Your task to perform on an android device: toggle improve location accuracy Image 0: 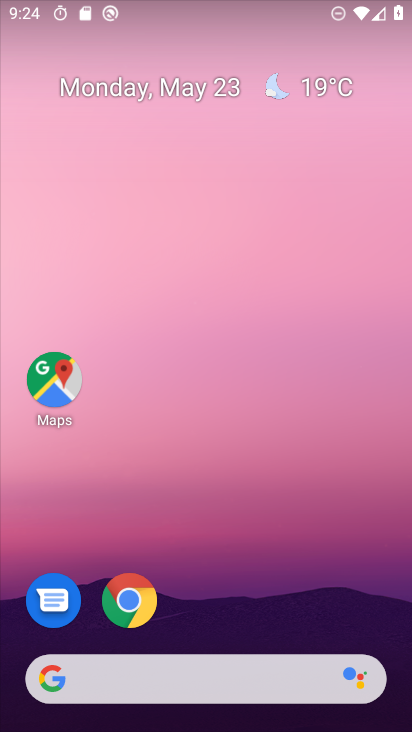
Step 0: press home button
Your task to perform on an android device: toggle improve location accuracy Image 1: 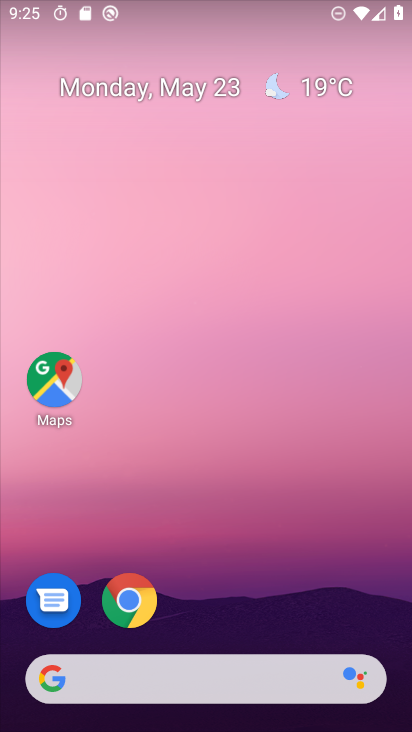
Step 1: click (127, 608)
Your task to perform on an android device: toggle improve location accuracy Image 2: 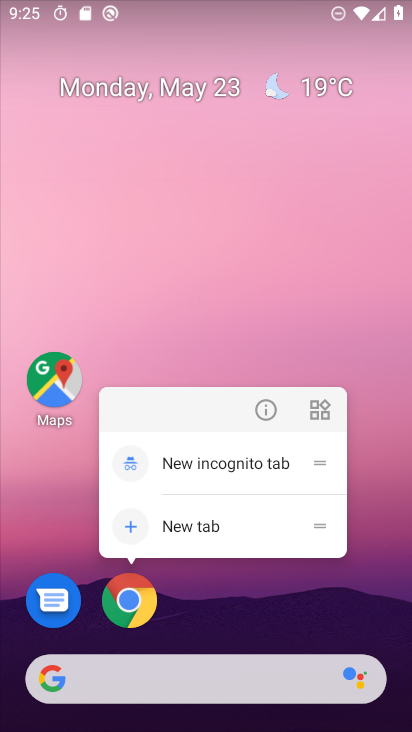
Step 2: press home button
Your task to perform on an android device: toggle improve location accuracy Image 3: 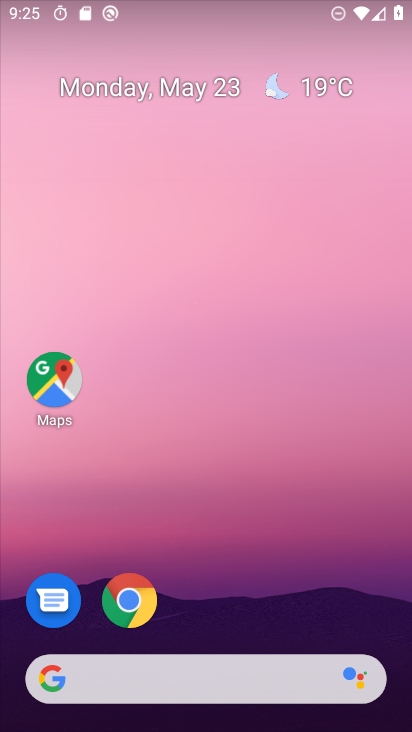
Step 3: drag from (17, 669) to (407, 90)
Your task to perform on an android device: toggle improve location accuracy Image 4: 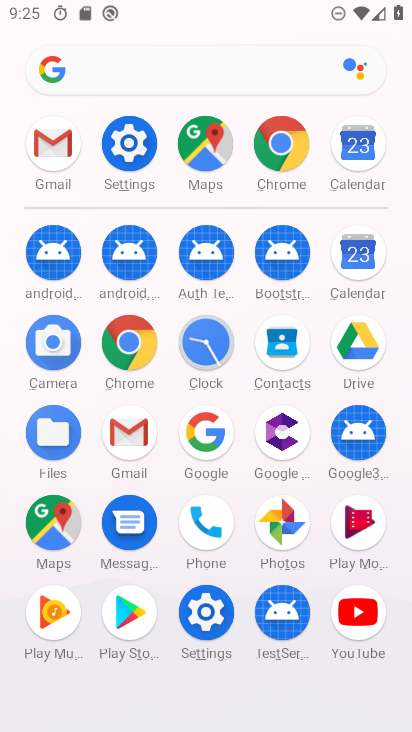
Step 4: click (131, 145)
Your task to perform on an android device: toggle improve location accuracy Image 5: 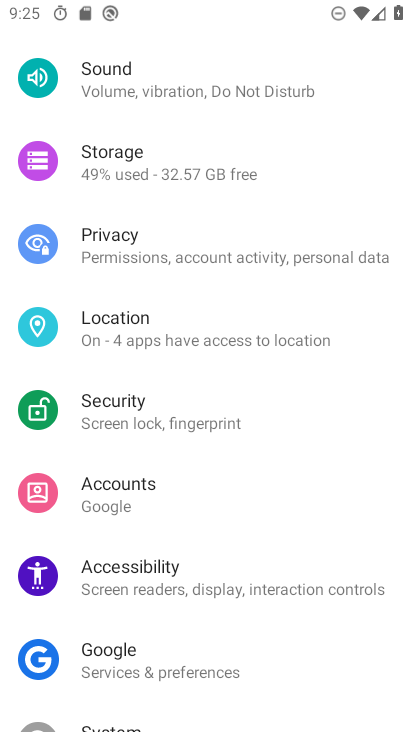
Step 5: click (105, 325)
Your task to perform on an android device: toggle improve location accuracy Image 6: 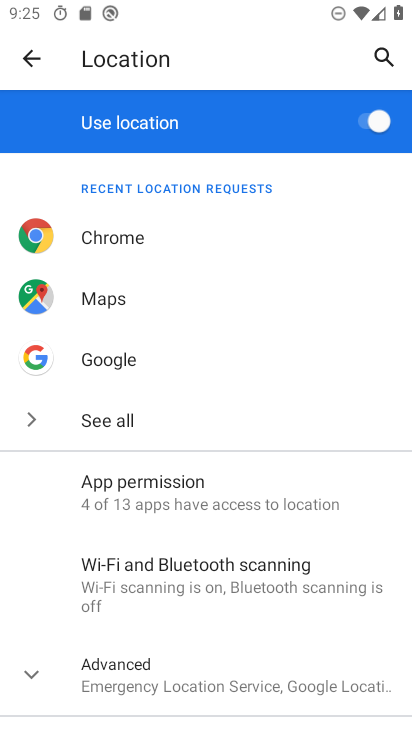
Step 6: click (153, 678)
Your task to perform on an android device: toggle improve location accuracy Image 7: 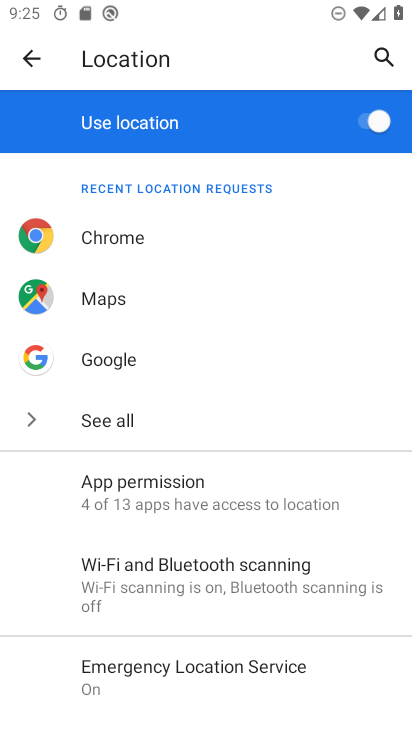
Step 7: drag from (35, 566) to (254, 241)
Your task to perform on an android device: toggle improve location accuracy Image 8: 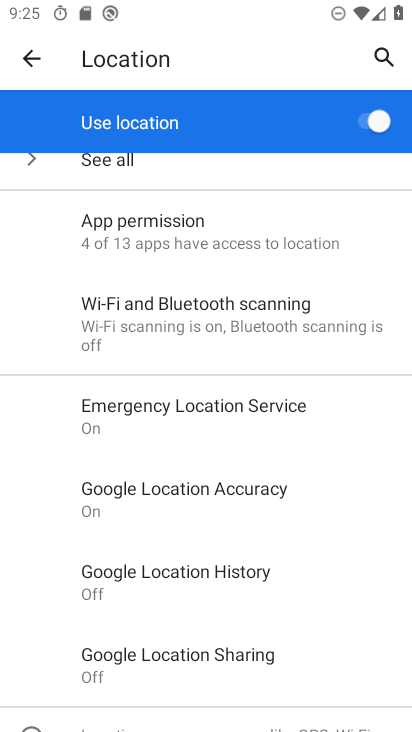
Step 8: click (182, 497)
Your task to perform on an android device: toggle improve location accuracy Image 9: 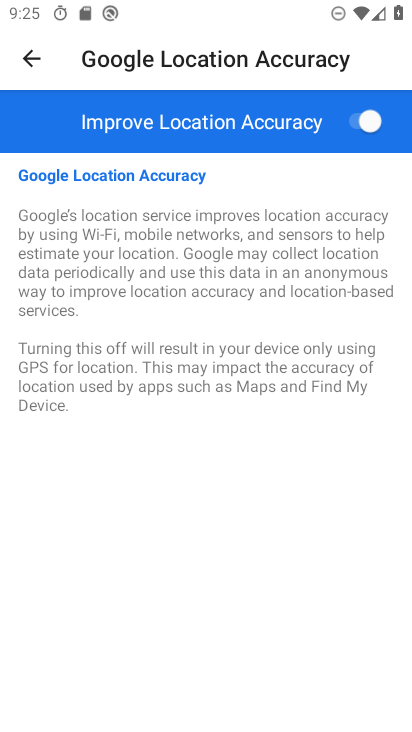
Step 9: click (379, 124)
Your task to perform on an android device: toggle improve location accuracy Image 10: 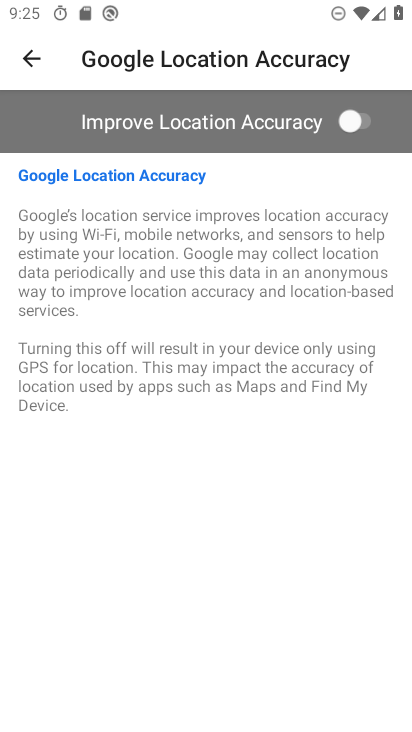
Step 10: task complete